Your task to perform on an android device: Add "usb-a to usb-b" to the cart on ebay, then select checkout. Image 0: 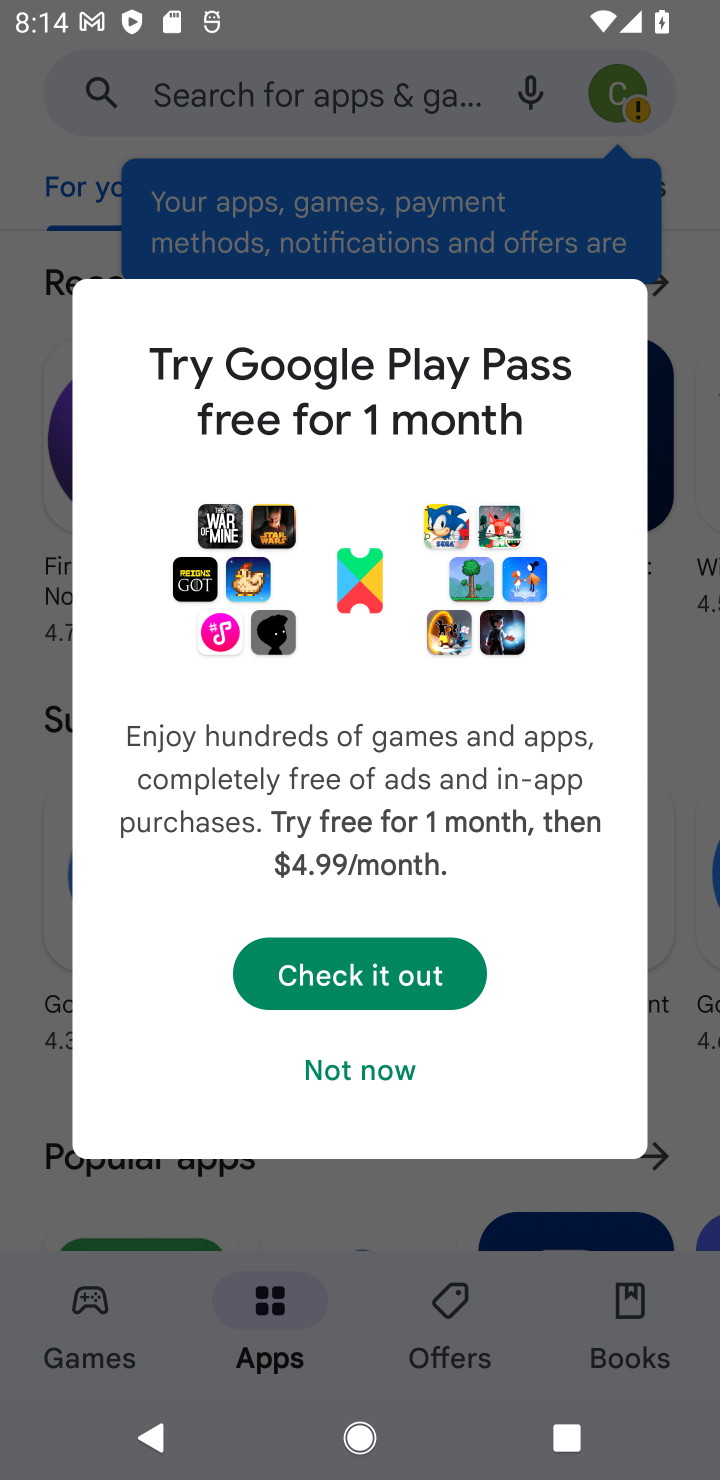
Step 0: task complete